Your task to perform on an android device: toggle javascript in the chrome app Image 0: 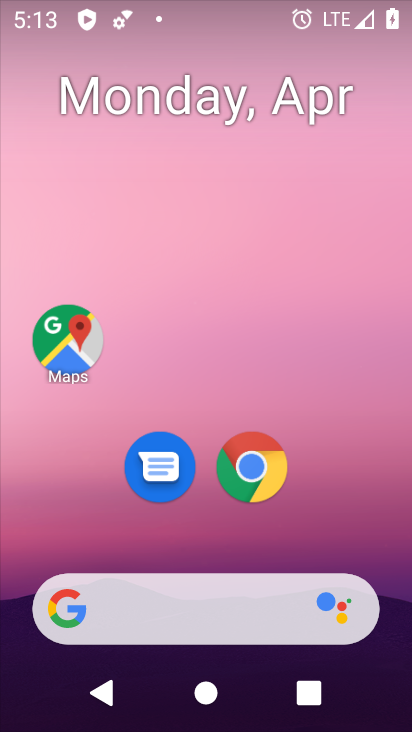
Step 0: click (307, 1)
Your task to perform on an android device: toggle javascript in the chrome app Image 1: 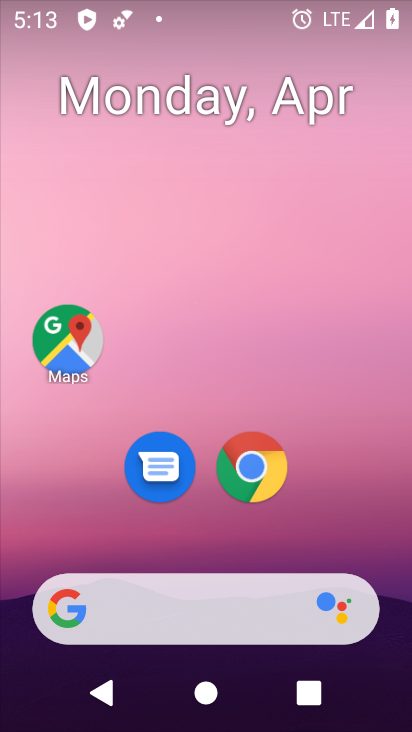
Step 1: drag from (375, 587) to (341, 12)
Your task to perform on an android device: toggle javascript in the chrome app Image 2: 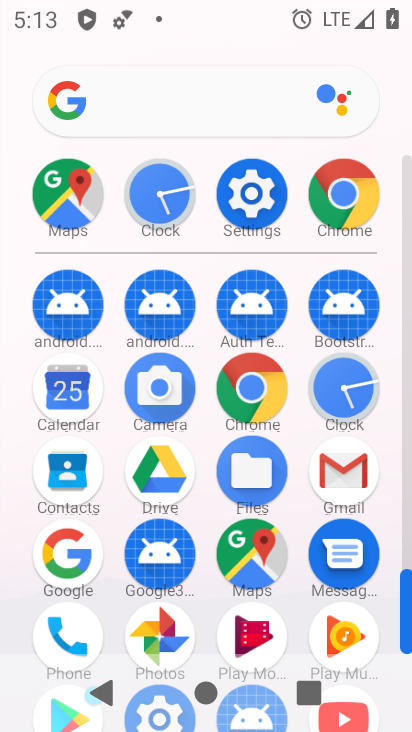
Step 2: click (262, 374)
Your task to perform on an android device: toggle javascript in the chrome app Image 3: 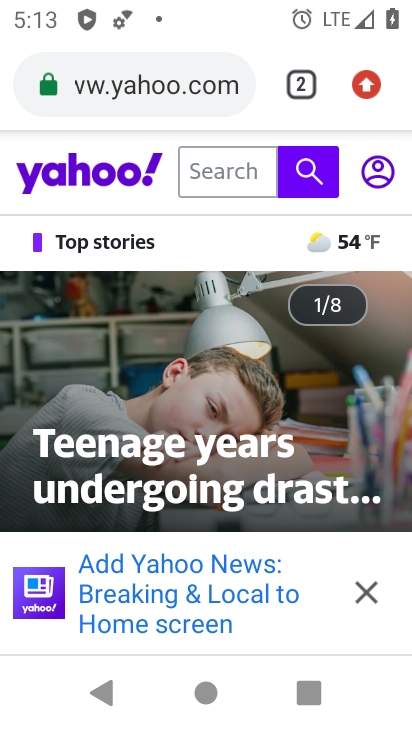
Step 3: drag from (366, 80) to (200, 521)
Your task to perform on an android device: toggle javascript in the chrome app Image 4: 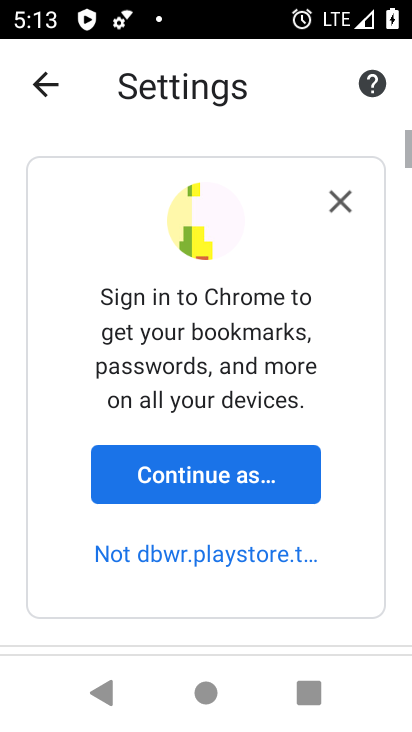
Step 4: drag from (267, 614) to (178, 3)
Your task to perform on an android device: toggle javascript in the chrome app Image 5: 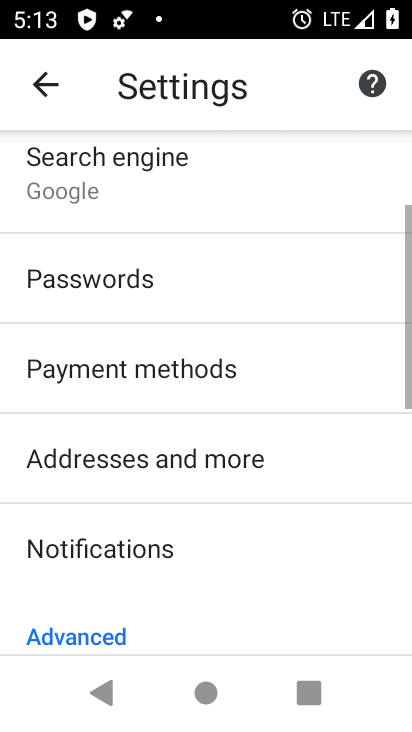
Step 5: drag from (249, 658) to (275, 82)
Your task to perform on an android device: toggle javascript in the chrome app Image 6: 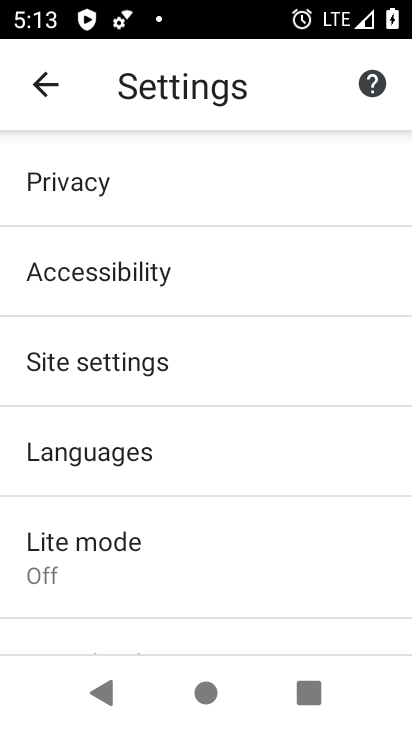
Step 6: click (169, 353)
Your task to perform on an android device: toggle javascript in the chrome app Image 7: 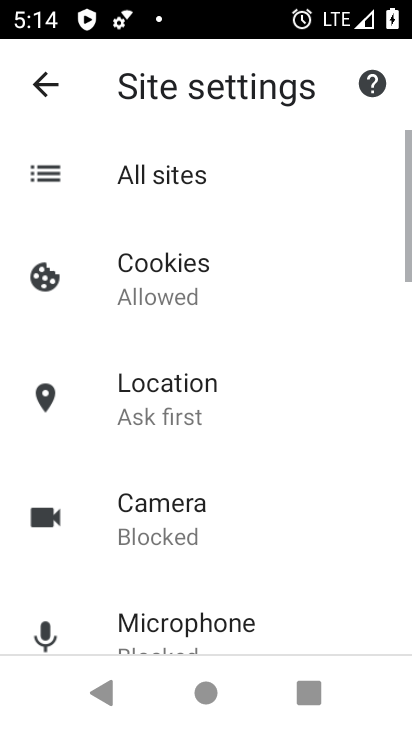
Step 7: drag from (294, 641) to (289, 14)
Your task to perform on an android device: toggle javascript in the chrome app Image 8: 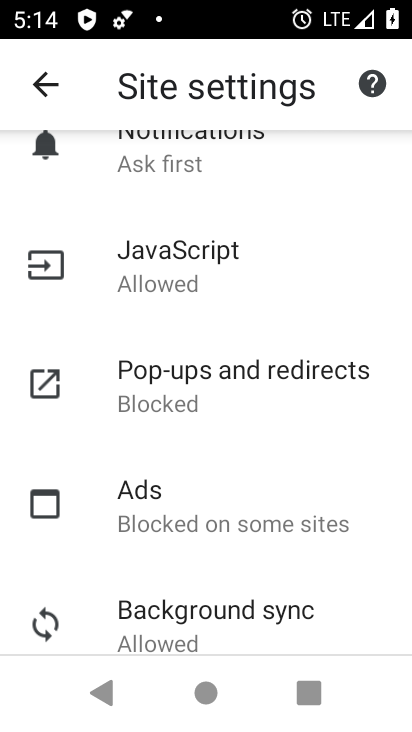
Step 8: click (246, 270)
Your task to perform on an android device: toggle javascript in the chrome app Image 9: 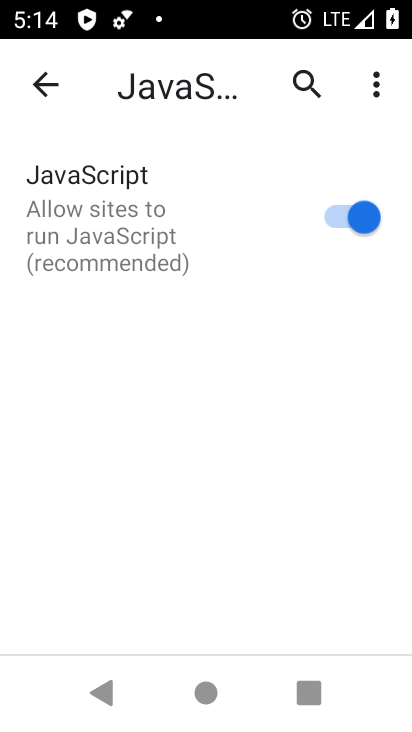
Step 9: click (351, 216)
Your task to perform on an android device: toggle javascript in the chrome app Image 10: 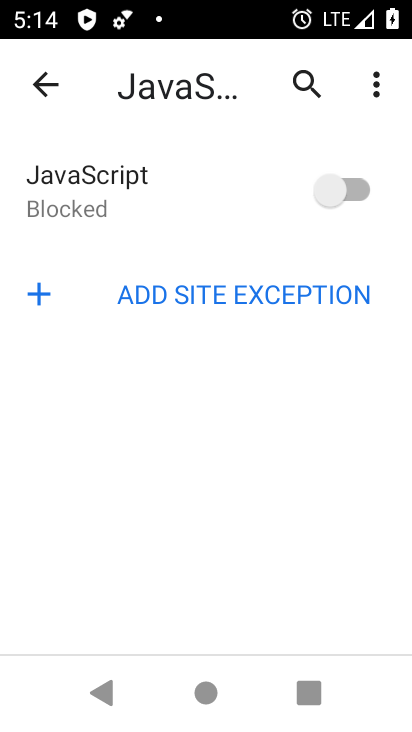
Step 10: task complete